Your task to perform on an android device: What's the weather? Image 0: 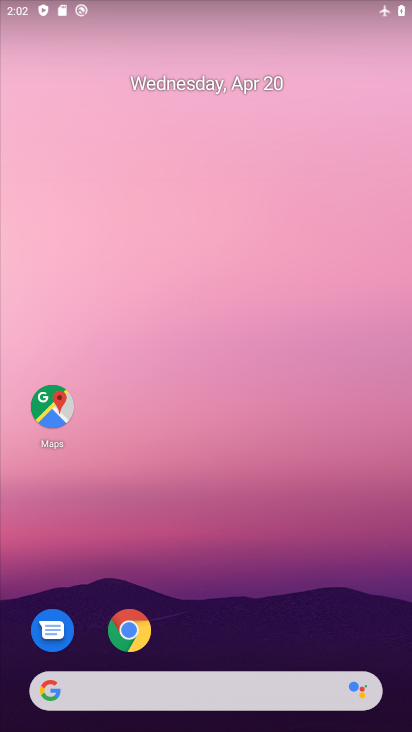
Step 0: click (141, 640)
Your task to perform on an android device: What's the weather? Image 1: 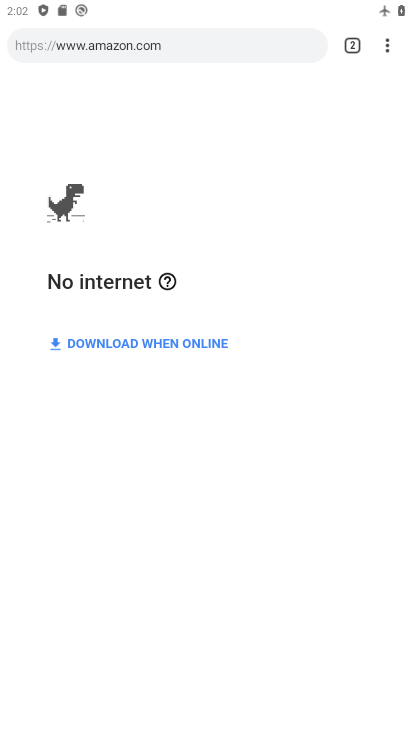
Step 1: click (211, 44)
Your task to perform on an android device: What's the weather? Image 2: 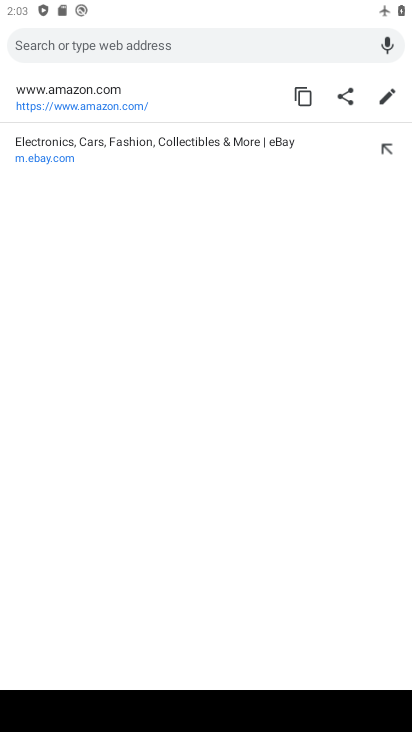
Step 2: type "What's the weather?"
Your task to perform on an android device: What's the weather? Image 3: 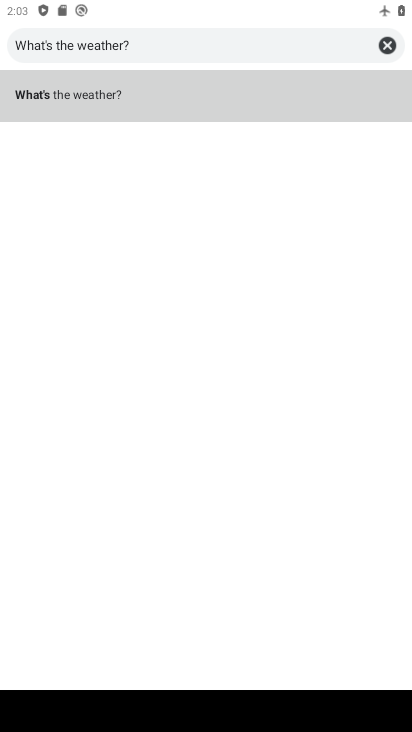
Step 3: click (132, 94)
Your task to perform on an android device: What's the weather? Image 4: 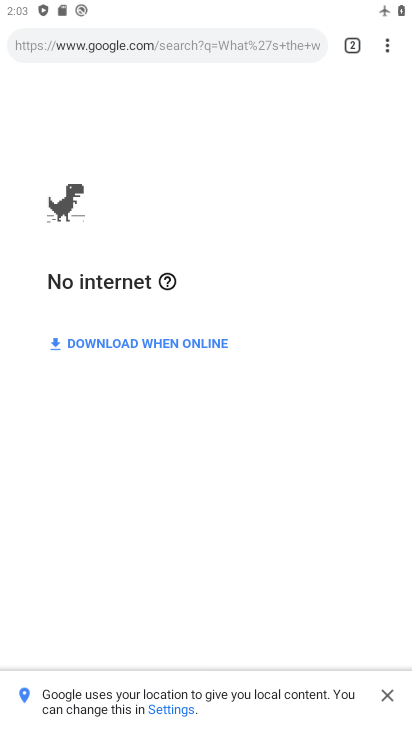
Step 4: task complete